Your task to perform on an android device: show emergency info Image 0: 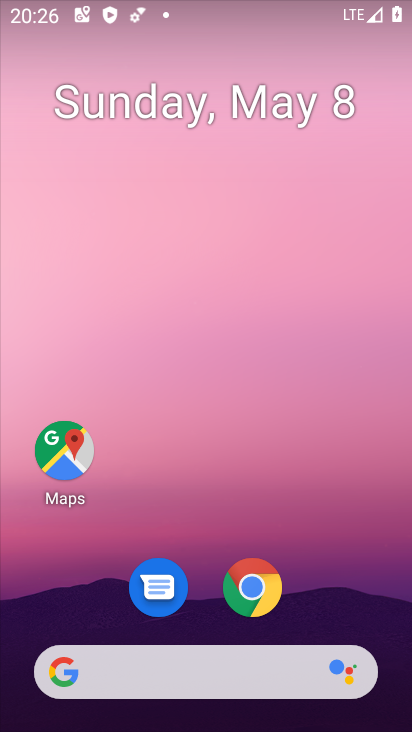
Step 0: drag from (201, 500) to (216, 0)
Your task to perform on an android device: show emergency info Image 1: 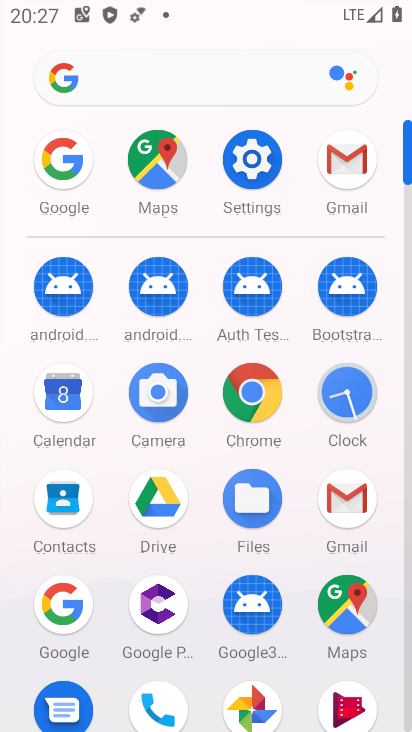
Step 1: click (249, 161)
Your task to perform on an android device: show emergency info Image 2: 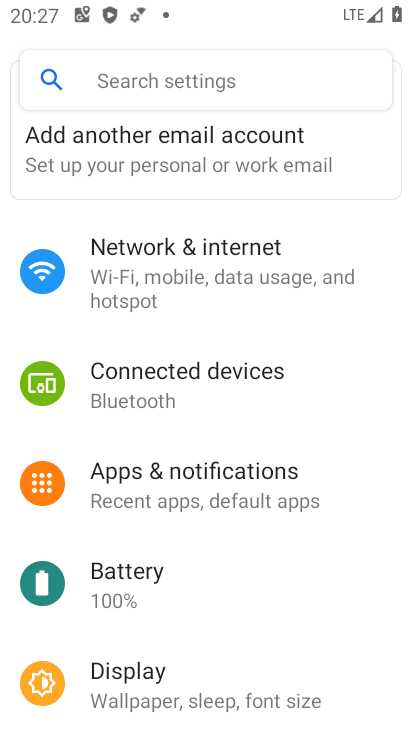
Step 2: drag from (205, 413) to (239, 297)
Your task to perform on an android device: show emergency info Image 3: 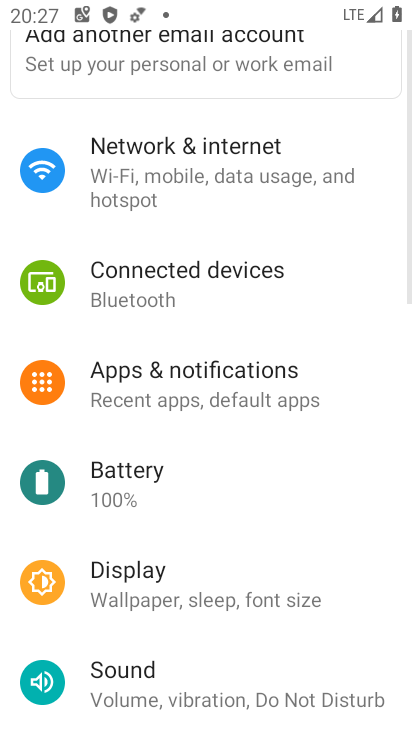
Step 3: drag from (204, 441) to (253, 338)
Your task to perform on an android device: show emergency info Image 4: 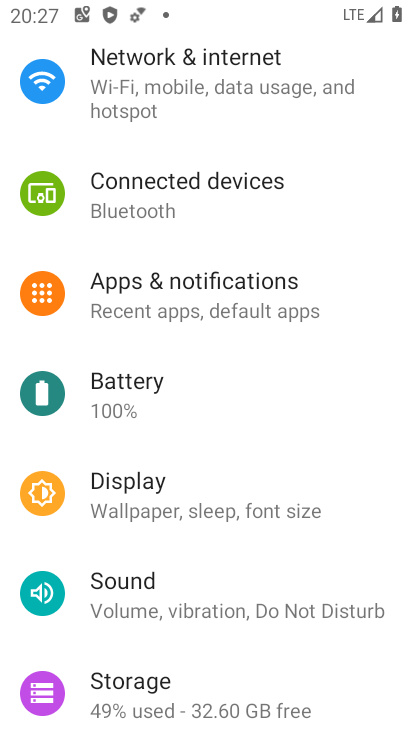
Step 4: drag from (192, 529) to (235, 407)
Your task to perform on an android device: show emergency info Image 5: 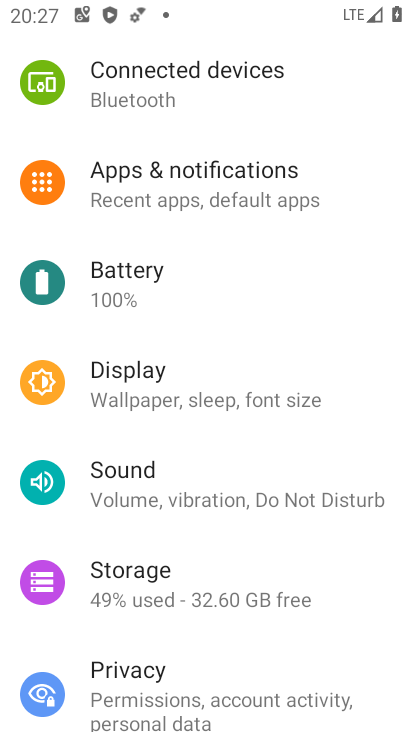
Step 5: drag from (198, 521) to (275, 419)
Your task to perform on an android device: show emergency info Image 6: 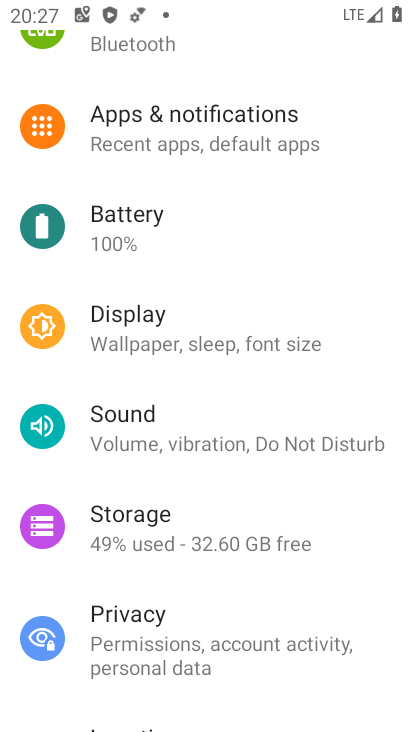
Step 6: drag from (210, 491) to (270, 372)
Your task to perform on an android device: show emergency info Image 7: 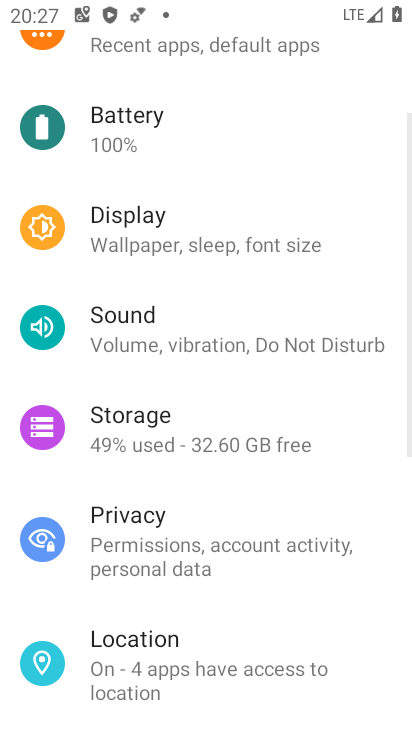
Step 7: drag from (177, 482) to (252, 363)
Your task to perform on an android device: show emergency info Image 8: 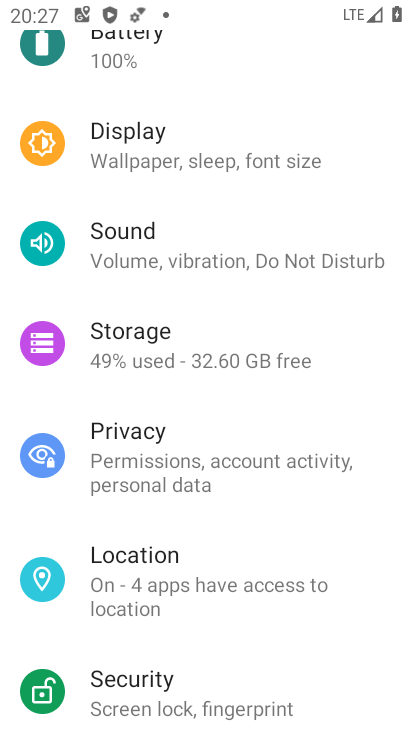
Step 8: drag from (173, 646) to (210, 500)
Your task to perform on an android device: show emergency info Image 9: 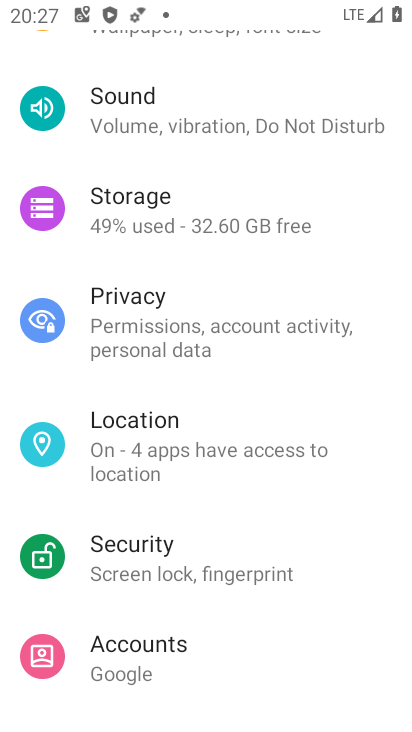
Step 9: drag from (153, 619) to (179, 481)
Your task to perform on an android device: show emergency info Image 10: 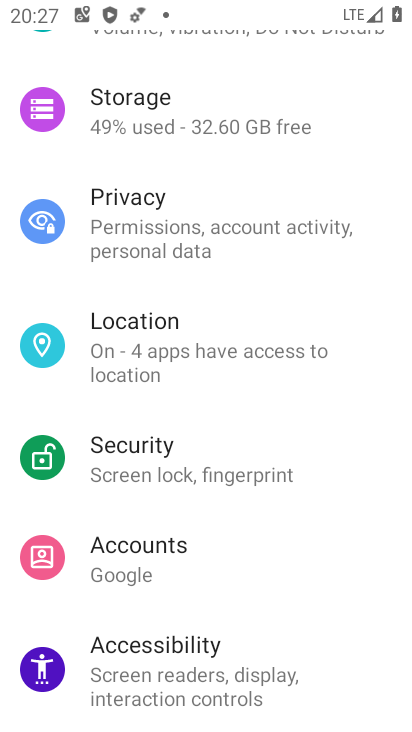
Step 10: drag from (138, 610) to (198, 429)
Your task to perform on an android device: show emergency info Image 11: 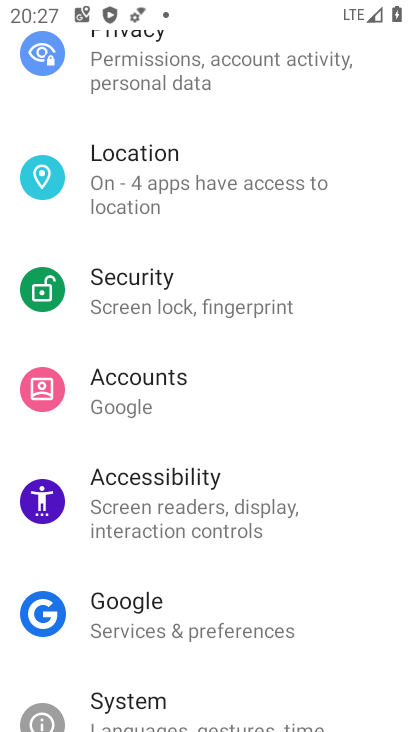
Step 11: drag from (124, 577) to (219, 409)
Your task to perform on an android device: show emergency info Image 12: 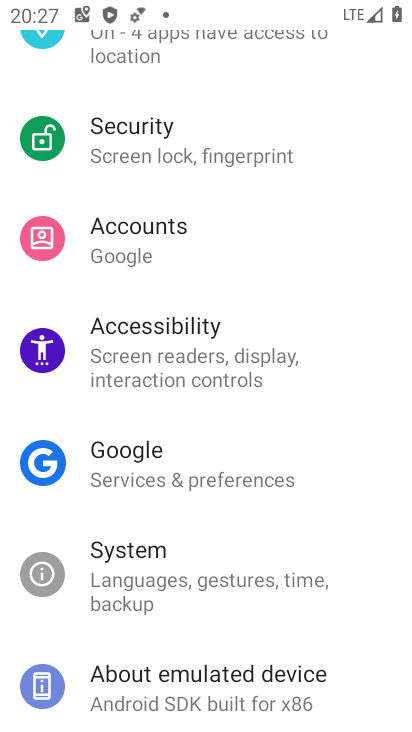
Step 12: drag from (146, 632) to (231, 469)
Your task to perform on an android device: show emergency info Image 13: 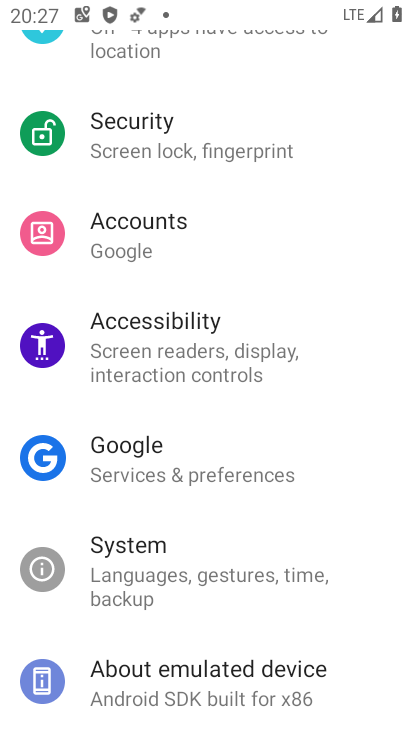
Step 13: click (148, 673)
Your task to perform on an android device: show emergency info Image 14: 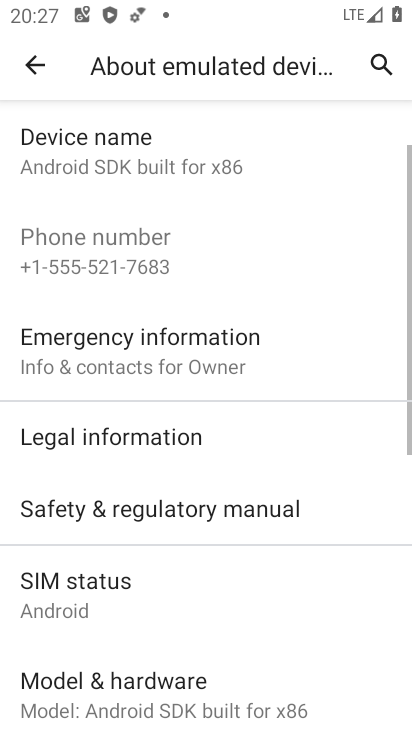
Step 14: click (173, 336)
Your task to perform on an android device: show emergency info Image 15: 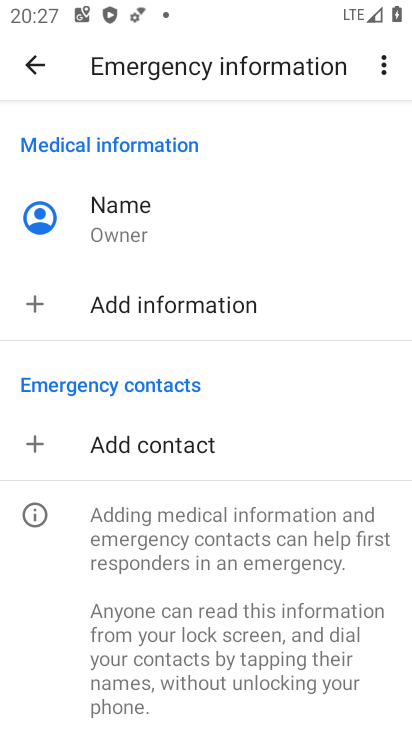
Step 15: task complete